Your task to perform on an android device: Search for Italian restaurants on Maps Image 0: 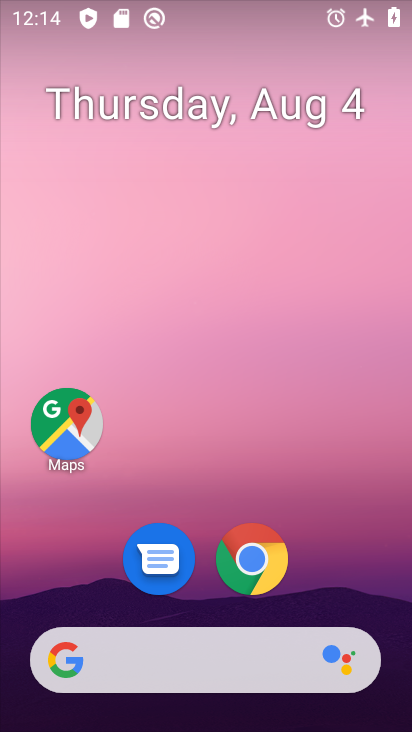
Step 0: click (68, 431)
Your task to perform on an android device: Search for Italian restaurants on Maps Image 1: 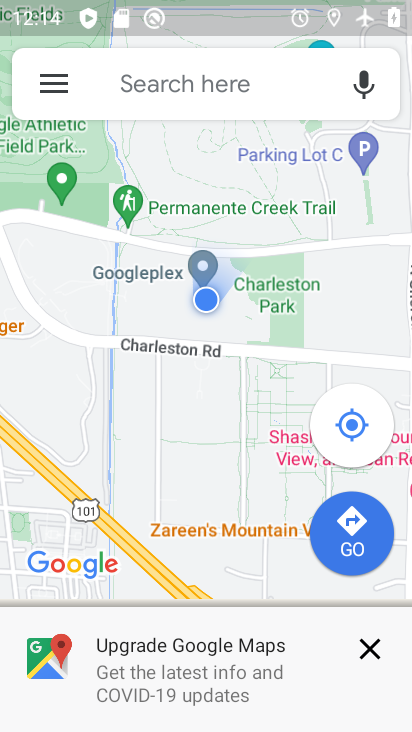
Step 1: click (369, 651)
Your task to perform on an android device: Search for Italian restaurants on Maps Image 2: 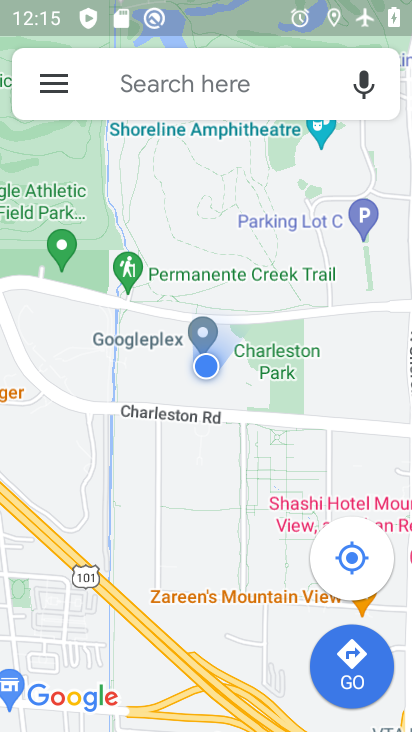
Step 2: click (164, 77)
Your task to perform on an android device: Search for Italian restaurants on Maps Image 3: 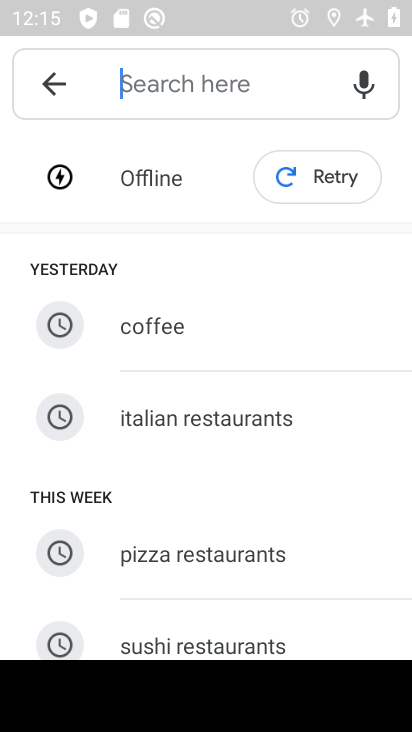
Step 3: type "Italian restaurants"
Your task to perform on an android device: Search for Italian restaurants on Maps Image 4: 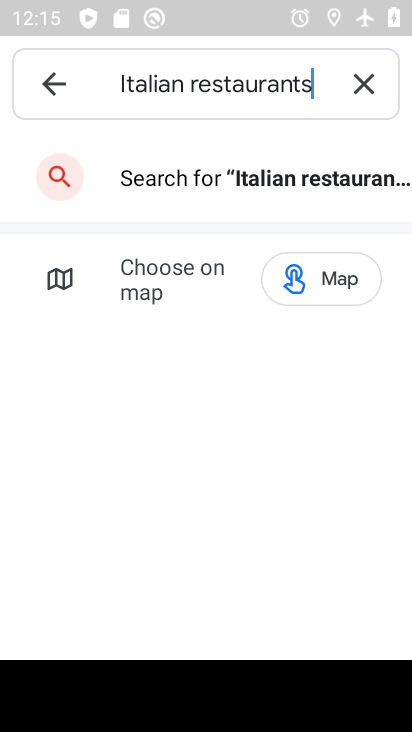
Step 4: task complete